Your task to perform on an android device: Search for seafood restaurants on Google Maps Image 0: 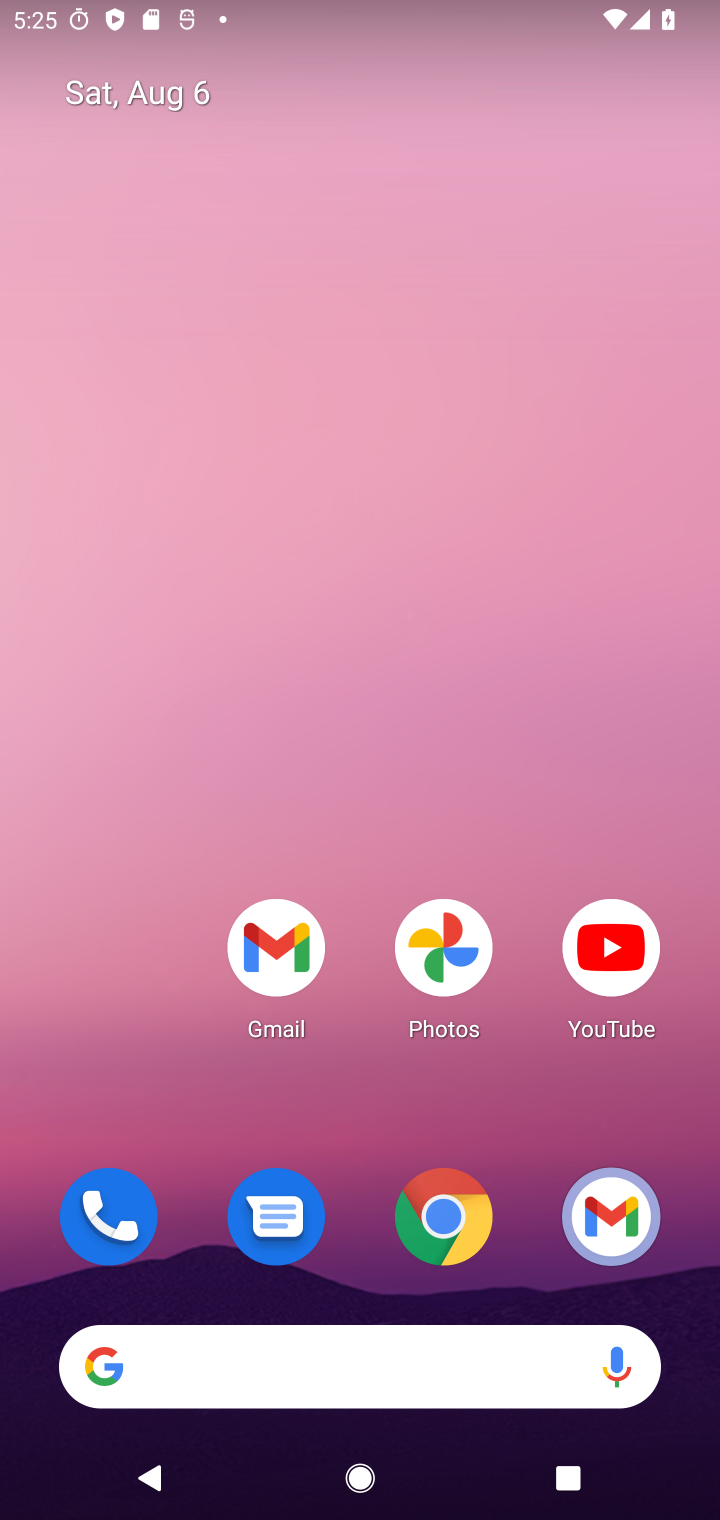
Step 0: drag from (515, 1079) to (465, 51)
Your task to perform on an android device: Search for seafood restaurants on Google Maps Image 1: 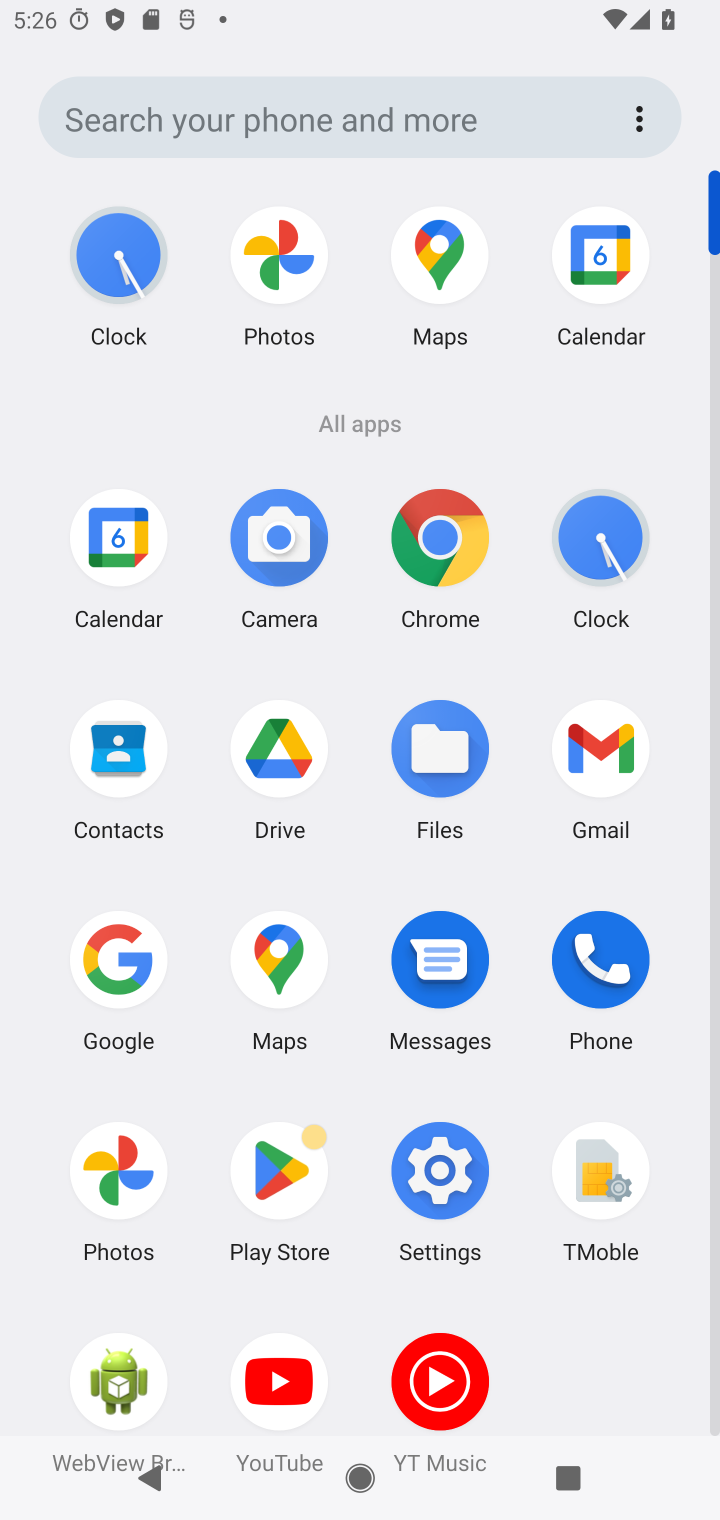
Step 1: click (274, 958)
Your task to perform on an android device: Search for seafood restaurants on Google Maps Image 2: 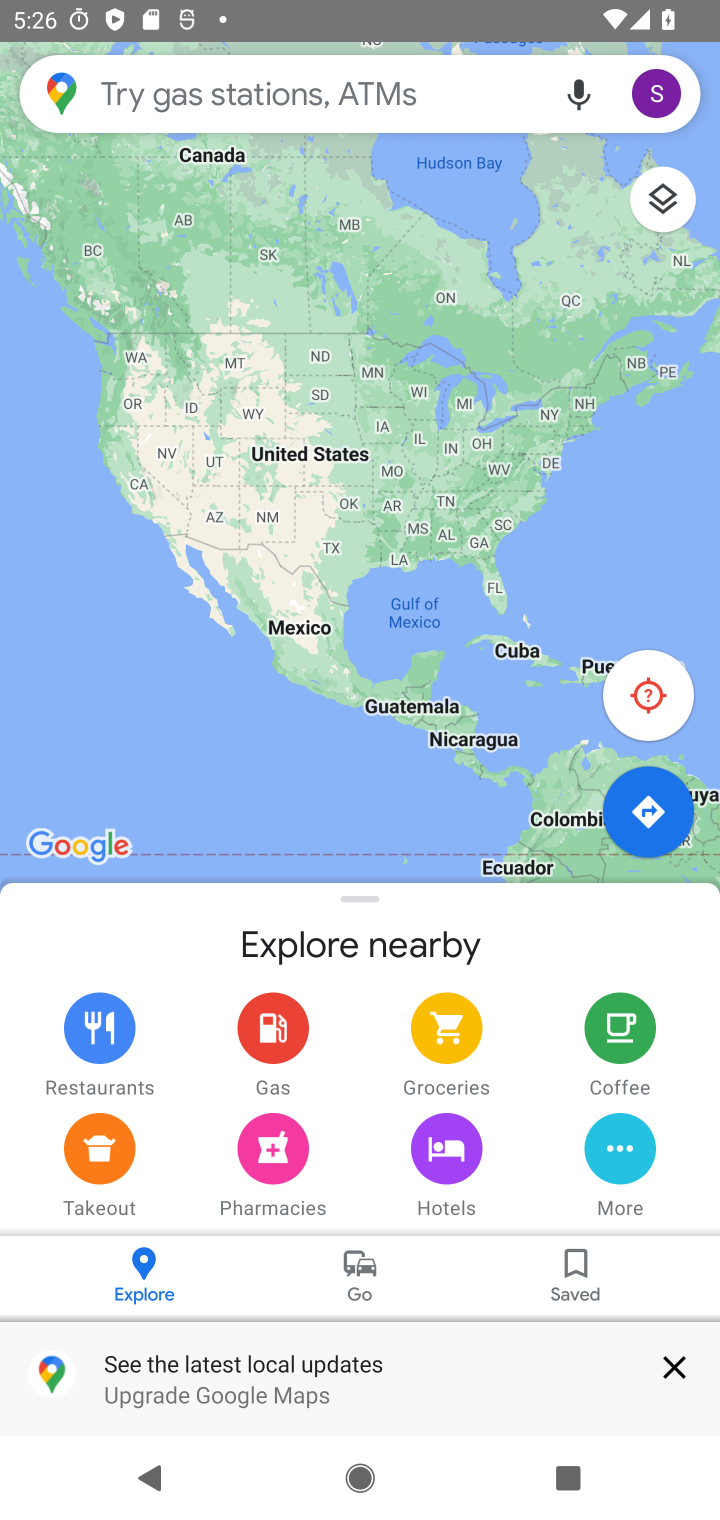
Step 2: click (372, 104)
Your task to perform on an android device: Search for seafood restaurants on Google Maps Image 3: 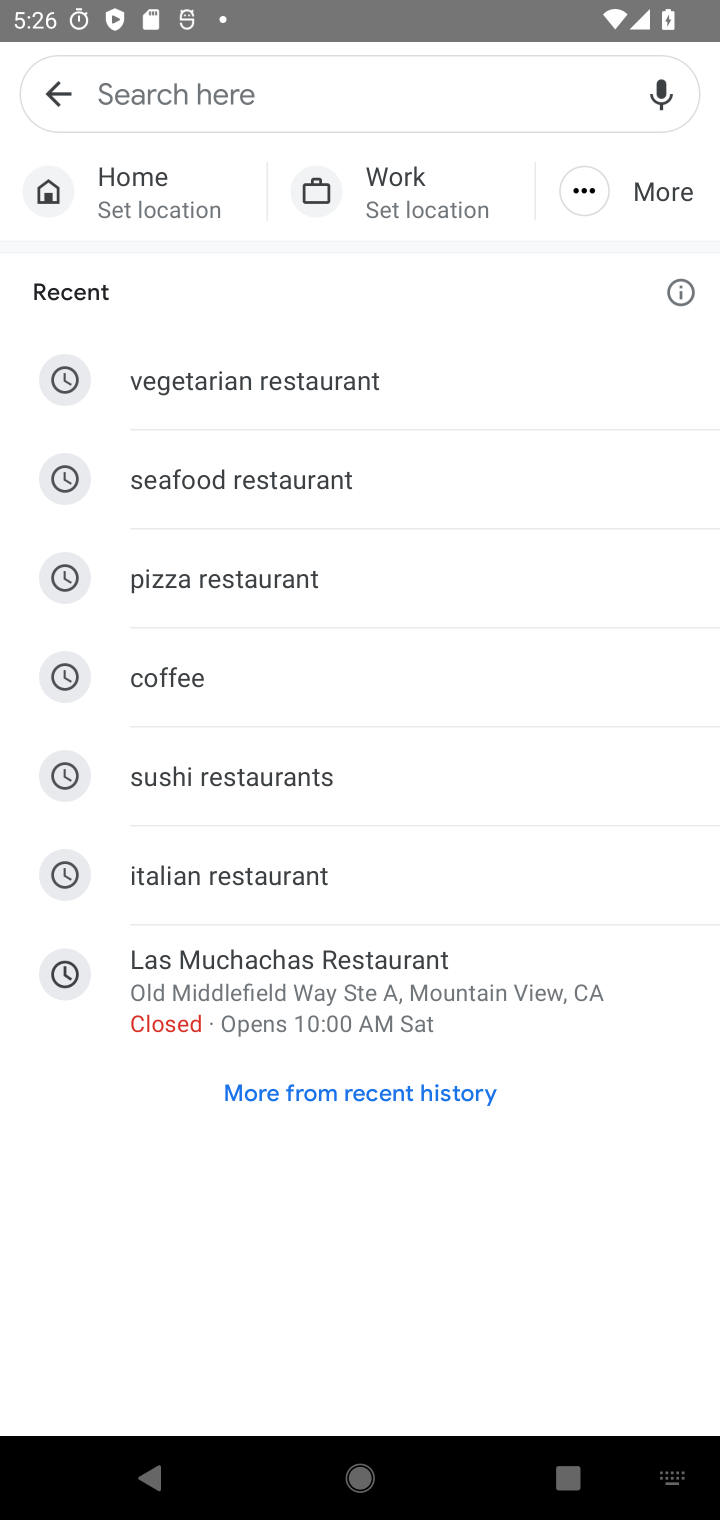
Step 3: type "seafood restaurants"
Your task to perform on an android device: Search for seafood restaurants on Google Maps Image 4: 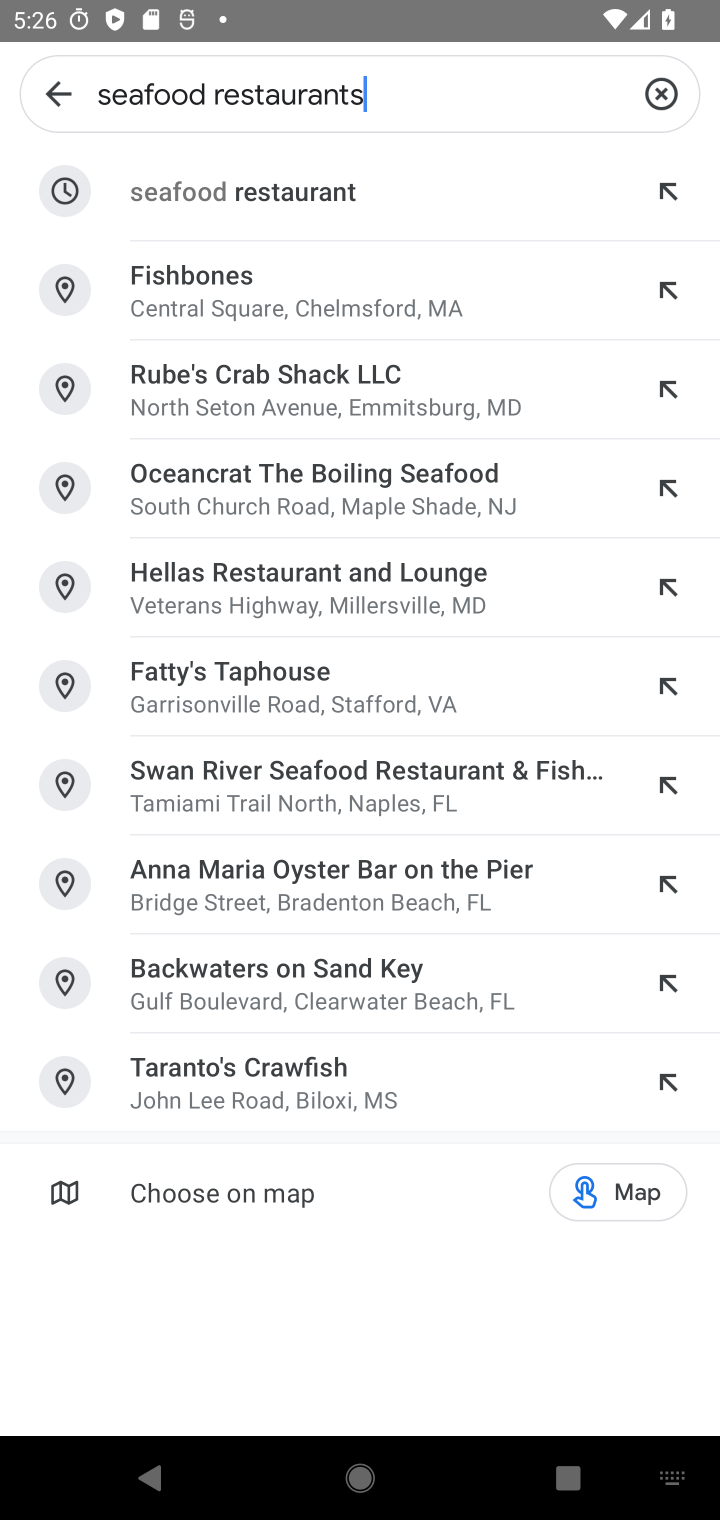
Step 4: press enter
Your task to perform on an android device: Search for seafood restaurants on Google Maps Image 5: 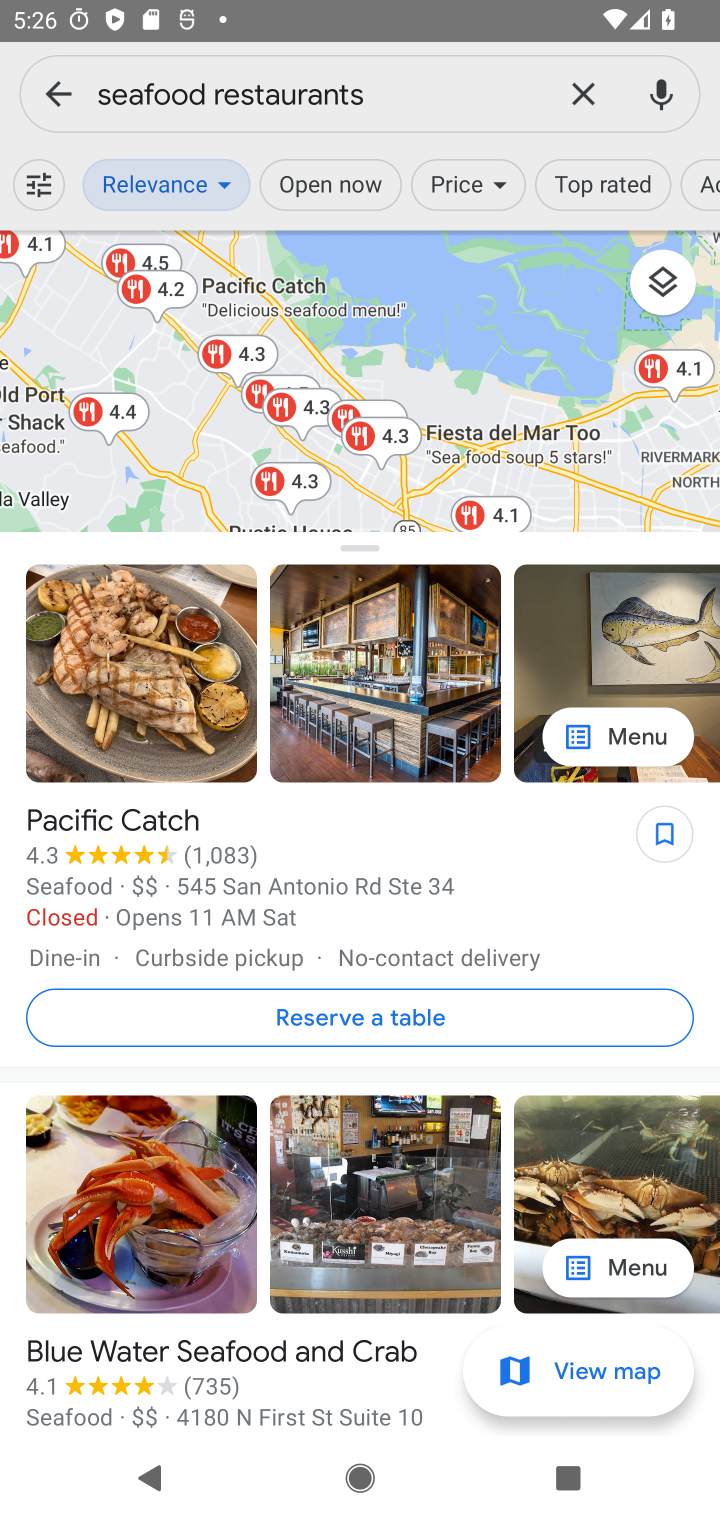
Step 5: task complete